Your task to perform on an android device: Open Wikipedia Image 0: 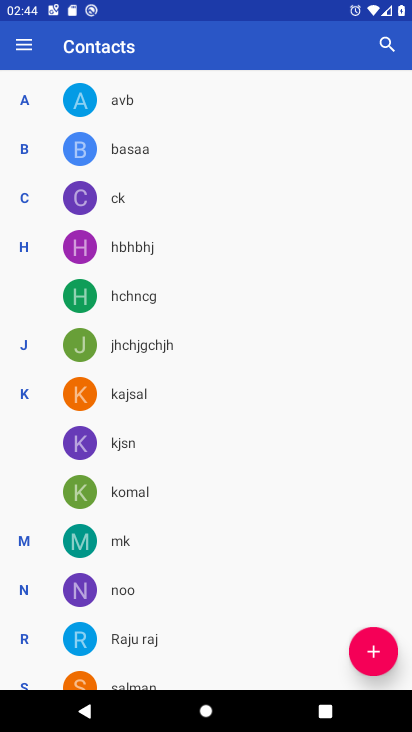
Step 0: press home button
Your task to perform on an android device: Open Wikipedia Image 1: 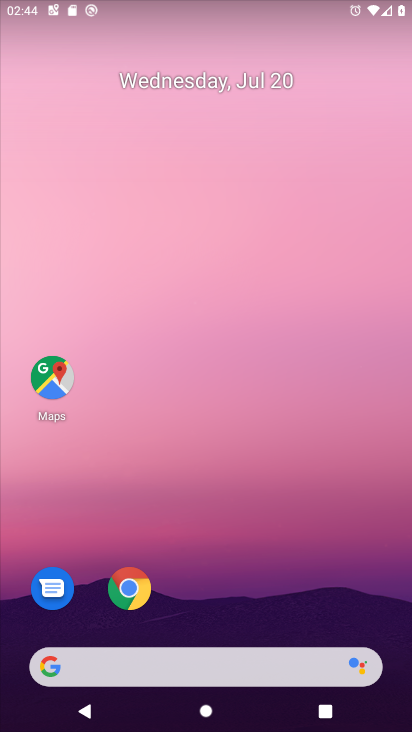
Step 1: drag from (247, 562) to (251, 224)
Your task to perform on an android device: Open Wikipedia Image 2: 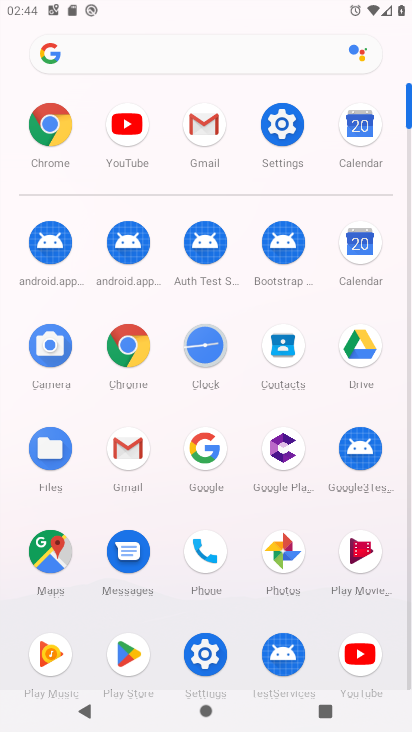
Step 2: click (60, 118)
Your task to perform on an android device: Open Wikipedia Image 3: 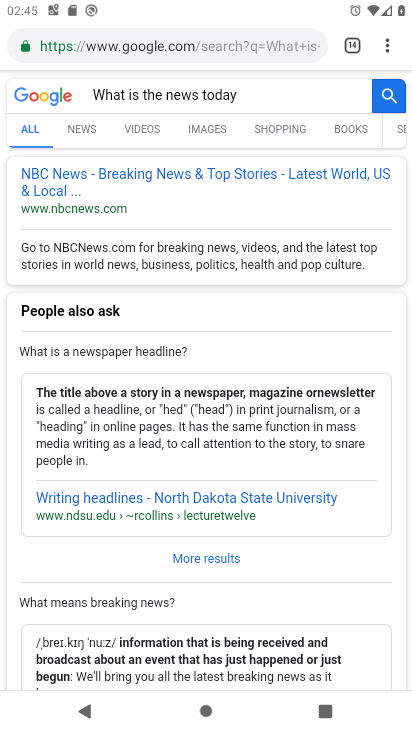
Step 3: click (390, 39)
Your task to perform on an android device: Open Wikipedia Image 4: 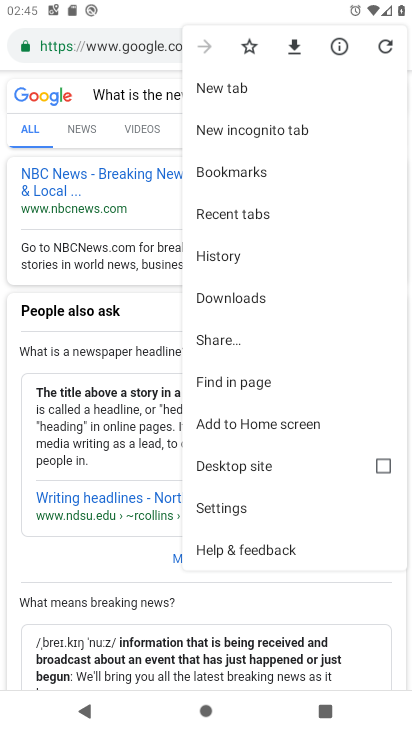
Step 4: click (214, 91)
Your task to perform on an android device: Open Wikipedia Image 5: 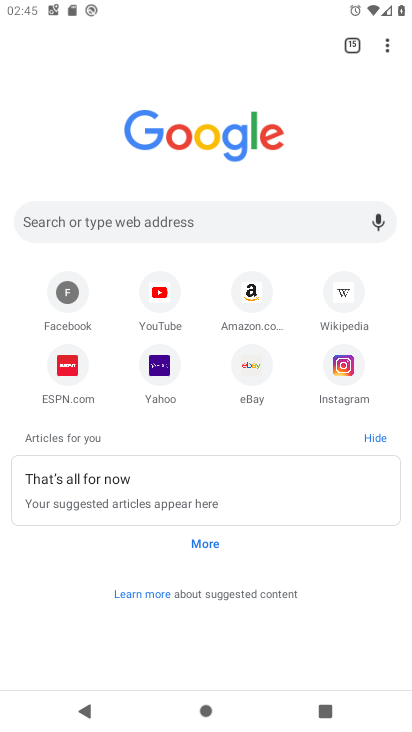
Step 5: click (333, 277)
Your task to perform on an android device: Open Wikipedia Image 6: 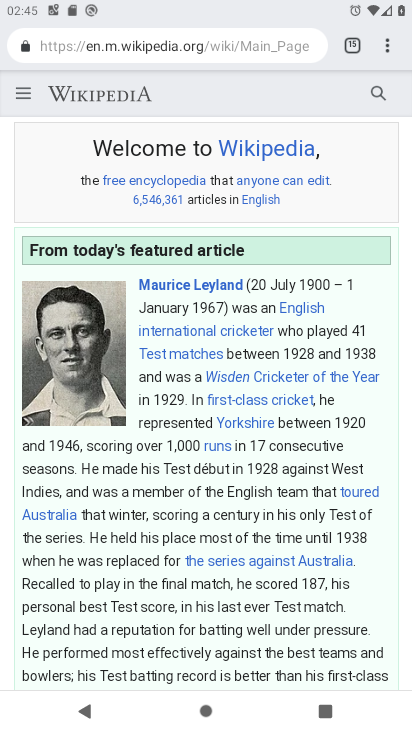
Step 6: task complete